Your task to perform on an android device: open a new tab in the chrome app Image 0: 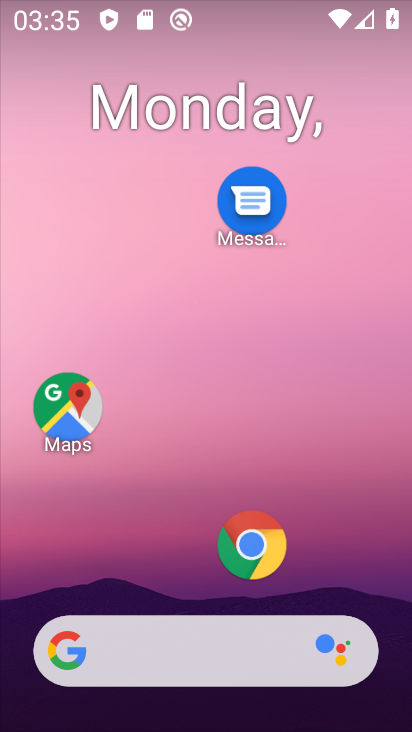
Step 0: click (248, 544)
Your task to perform on an android device: open a new tab in the chrome app Image 1: 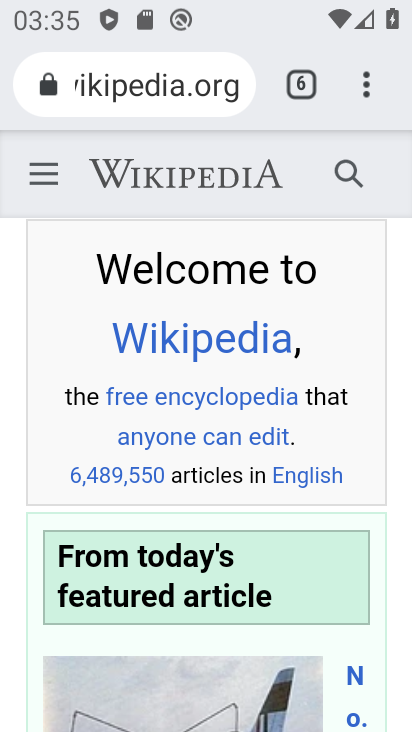
Step 1: click (304, 78)
Your task to perform on an android device: open a new tab in the chrome app Image 2: 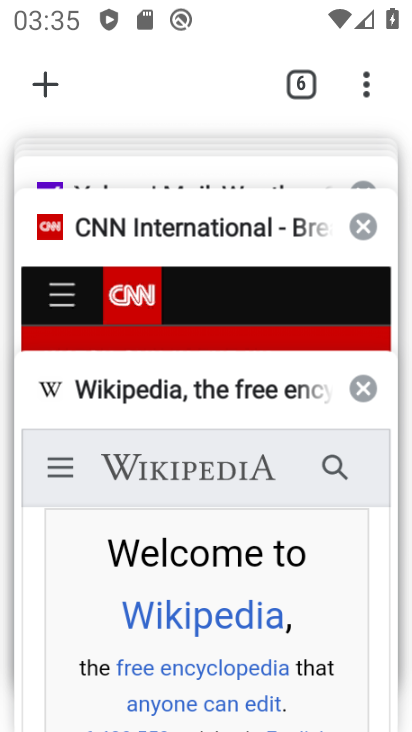
Step 2: click (45, 80)
Your task to perform on an android device: open a new tab in the chrome app Image 3: 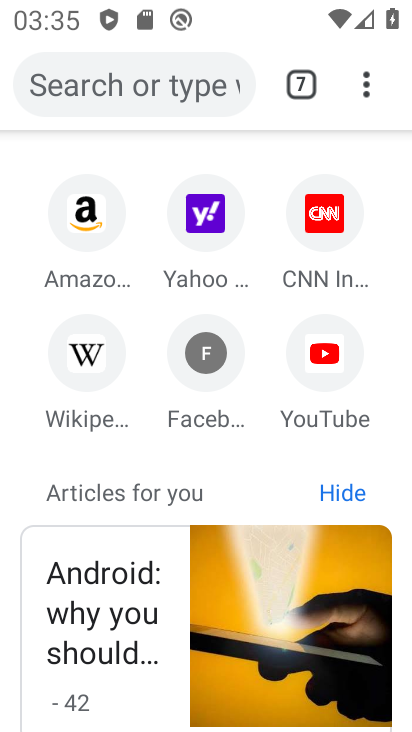
Step 3: task complete